Your task to perform on an android device: change your default location settings in chrome Image 0: 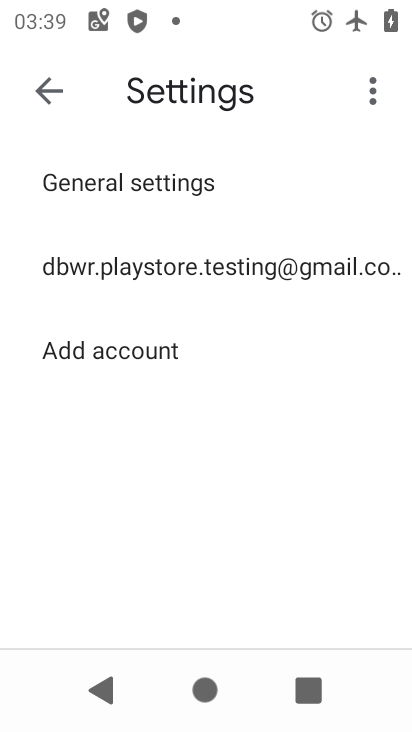
Step 0: press home button
Your task to perform on an android device: change your default location settings in chrome Image 1: 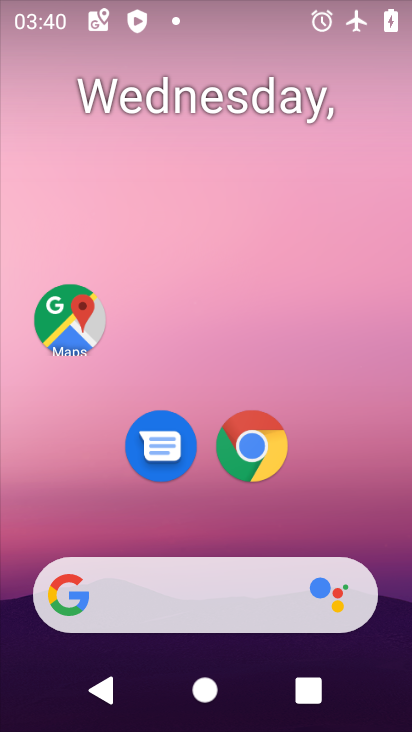
Step 1: click (230, 467)
Your task to perform on an android device: change your default location settings in chrome Image 2: 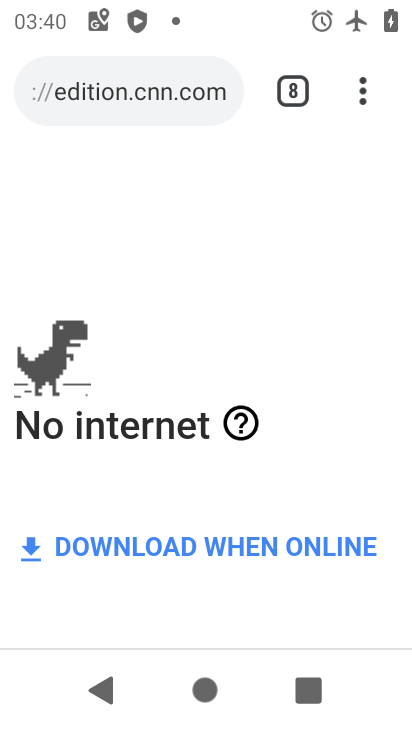
Step 2: click (355, 100)
Your task to perform on an android device: change your default location settings in chrome Image 3: 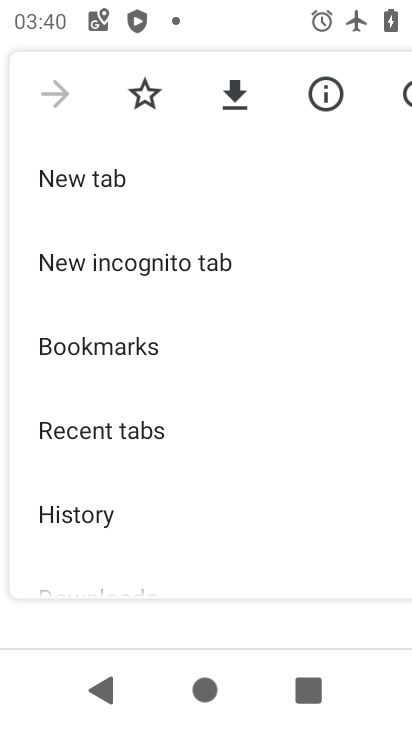
Step 3: drag from (236, 501) to (288, 218)
Your task to perform on an android device: change your default location settings in chrome Image 4: 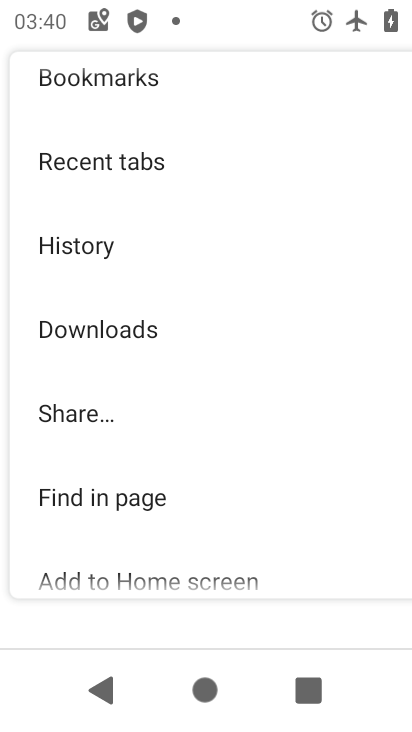
Step 4: drag from (168, 522) to (254, 223)
Your task to perform on an android device: change your default location settings in chrome Image 5: 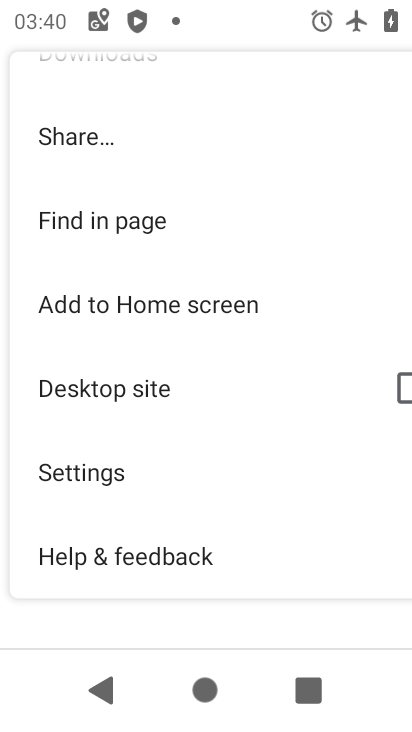
Step 5: click (141, 464)
Your task to perform on an android device: change your default location settings in chrome Image 6: 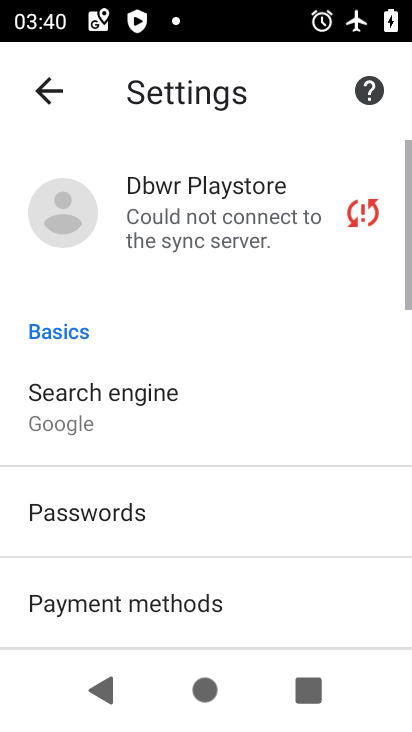
Step 6: drag from (188, 515) to (223, 360)
Your task to perform on an android device: change your default location settings in chrome Image 7: 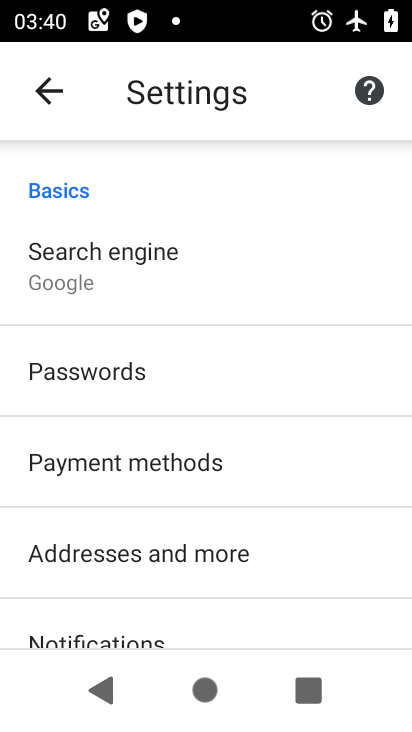
Step 7: drag from (220, 568) to (242, 482)
Your task to perform on an android device: change your default location settings in chrome Image 8: 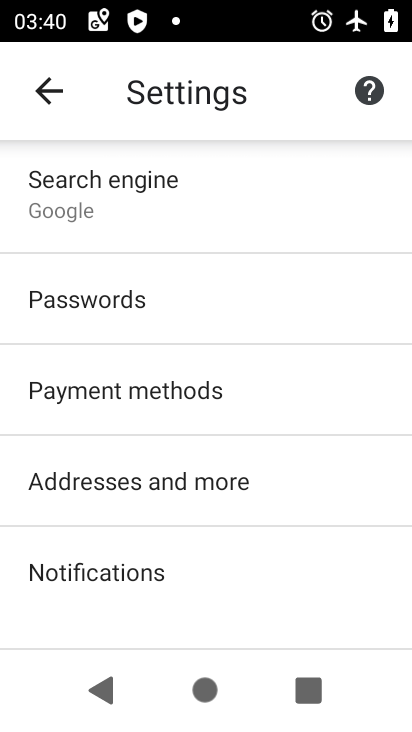
Step 8: drag from (226, 541) to (270, 342)
Your task to perform on an android device: change your default location settings in chrome Image 9: 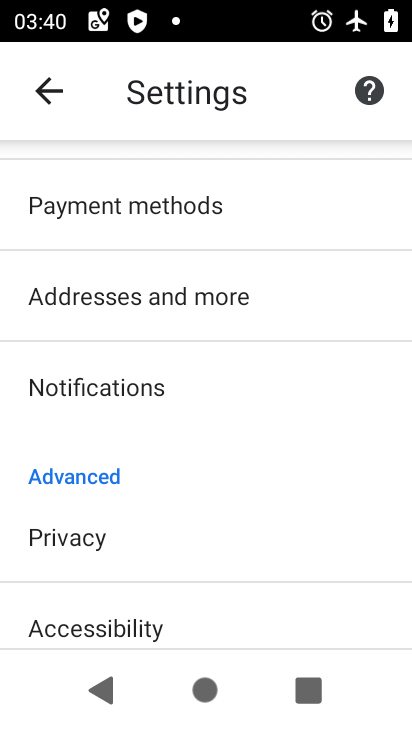
Step 9: drag from (171, 607) to (208, 347)
Your task to perform on an android device: change your default location settings in chrome Image 10: 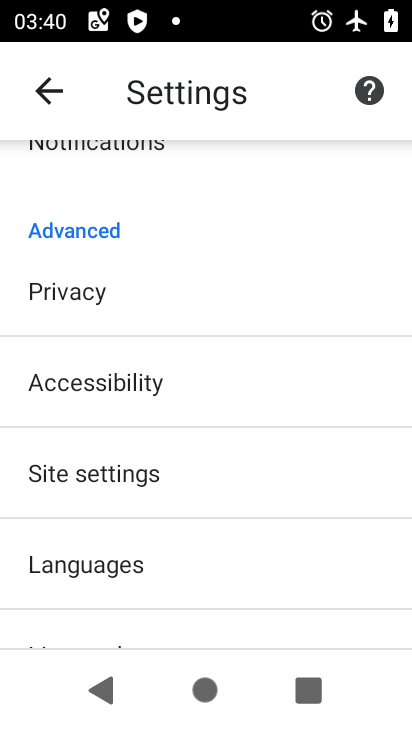
Step 10: click (195, 479)
Your task to perform on an android device: change your default location settings in chrome Image 11: 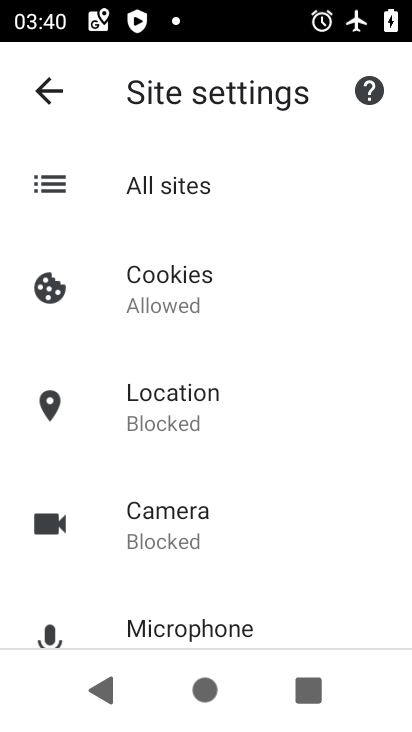
Step 11: click (203, 424)
Your task to perform on an android device: change your default location settings in chrome Image 12: 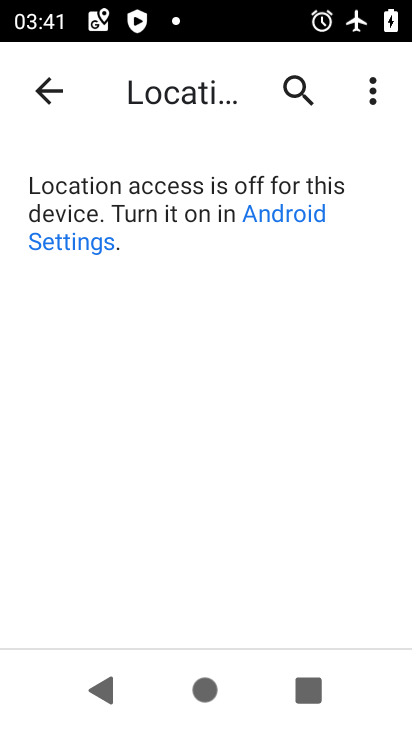
Step 12: click (280, 191)
Your task to perform on an android device: change your default location settings in chrome Image 13: 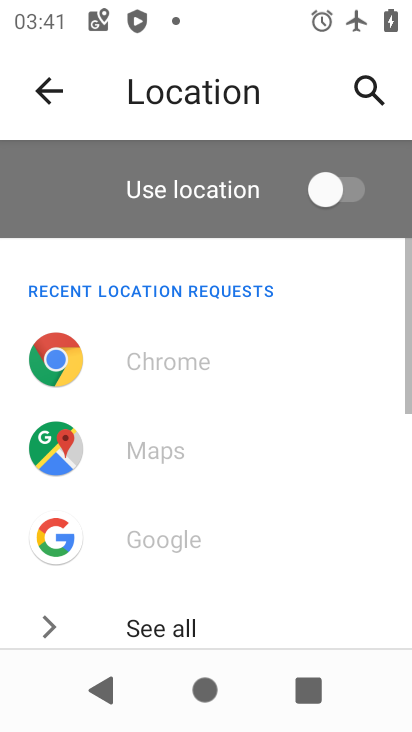
Step 13: click (352, 184)
Your task to perform on an android device: change your default location settings in chrome Image 14: 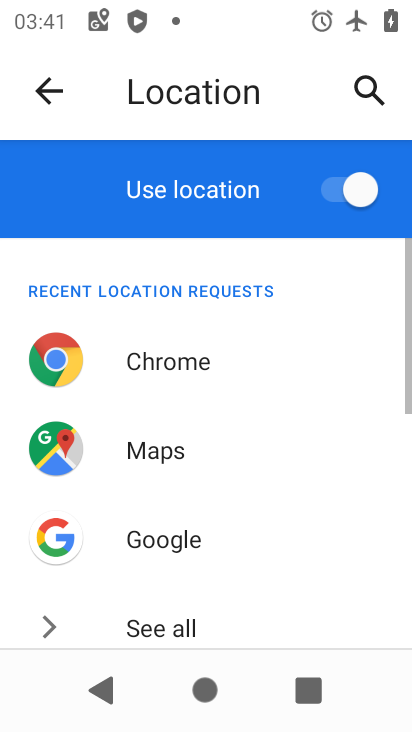
Step 14: task complete